Your task to perform on an android device: Open Android settings Image 0: 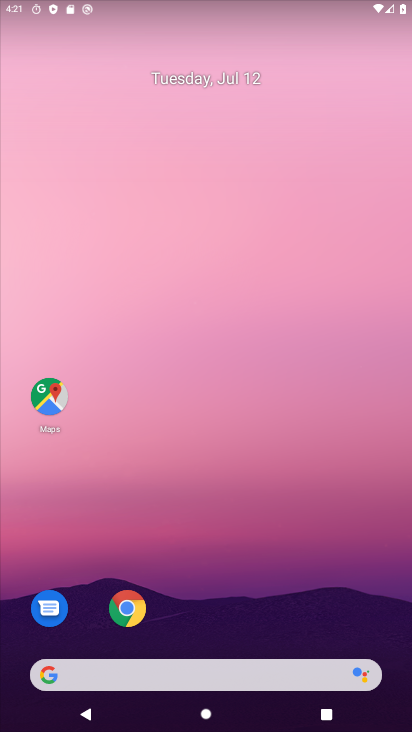
Step 0: drag from (273, 584) to (272, 119)
Your task to perform on an android device: Open Android settings Image 1: 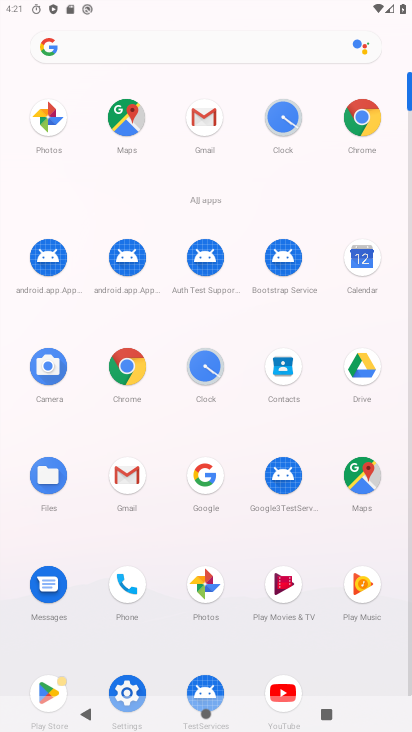
Step 1: click (129, 676)
Your task to perform on an android device: Open Android settings Image 2: 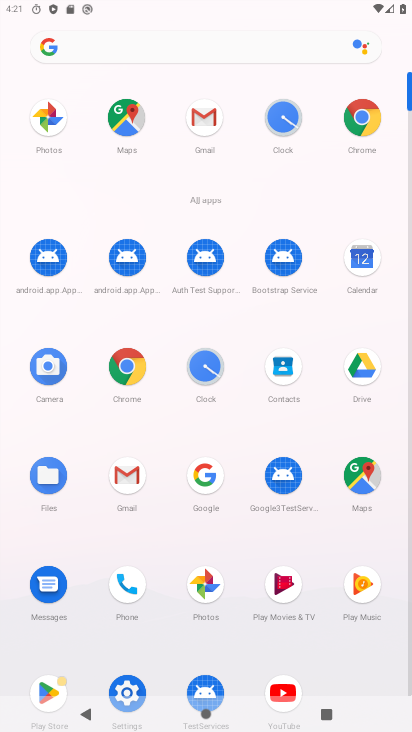
Step 2: click (130, 683)
Your task to perform on an android device: Open Android settings Image 3: 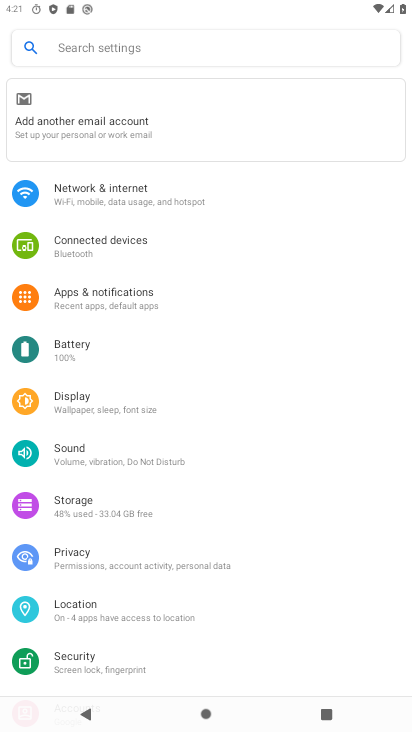
Step 3: drag from (157, 577) to (157, 20)
Your task to perform on an android device: Open Android settings Image 4: 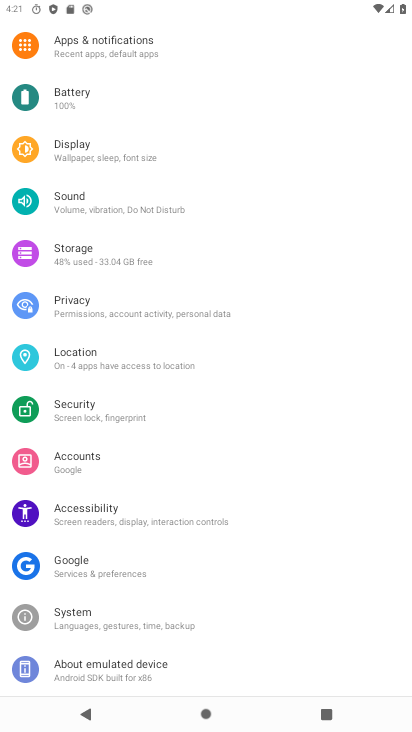
Step 4: click (110, 621)
Your task to perform on an android device: Open Android settings Image 5: 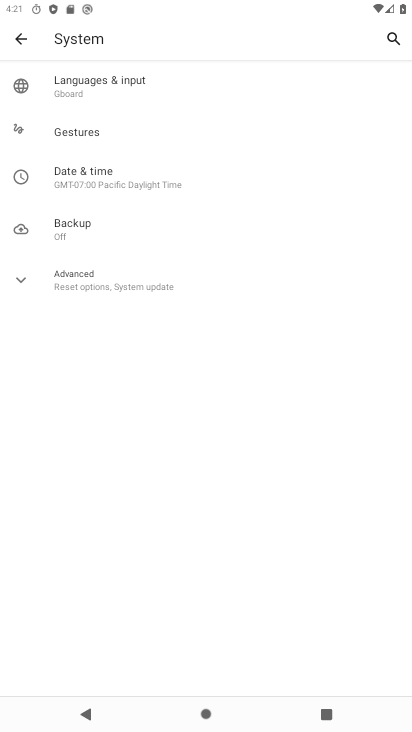
Step 5: task complete